Your task to perform on an android device: Open wifi settings Image 0: 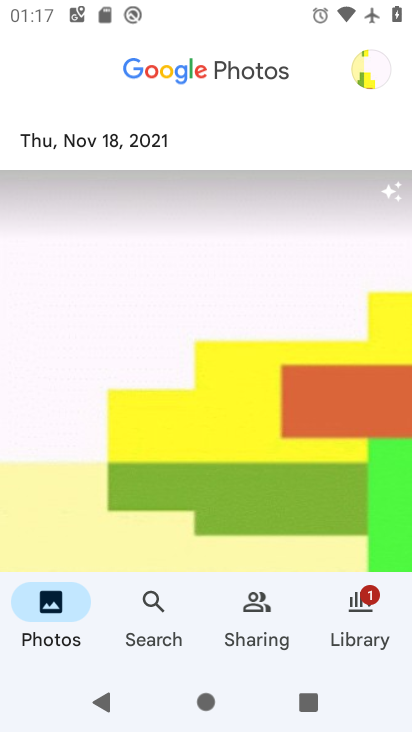
Step 0: press home button
Your task to perform on an android device: Open wifi settings Image 1: 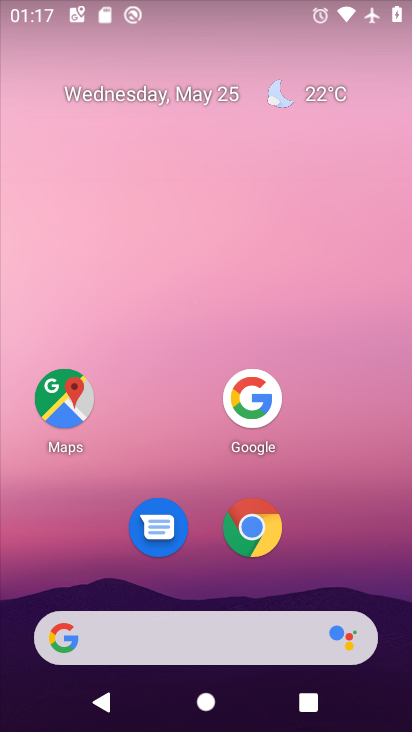
Step 1: drag from (214, 625) to (332, 64)
Your task to perform on an android device: Open wifi settings Image 2: 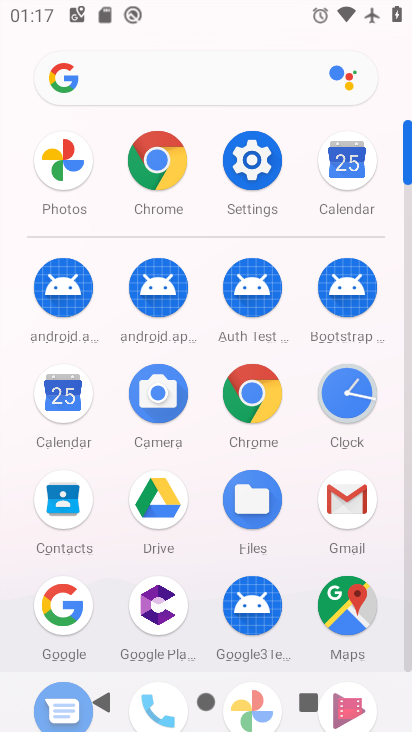
Step 2: click (261, 168)
Your task to perform on an android device: Open wifi settings Image 3: 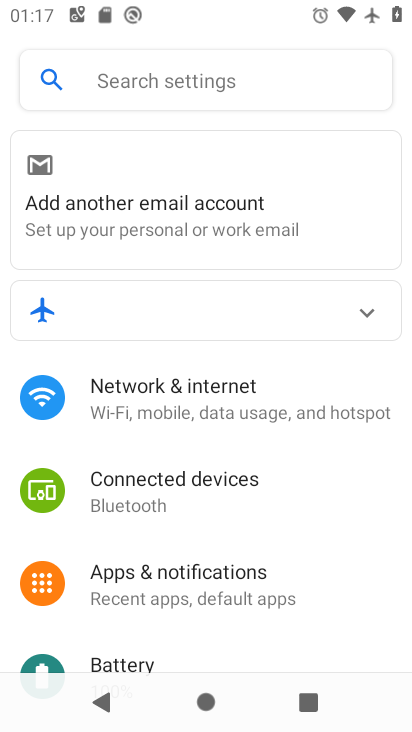
Step 3: click (216, 399)
Your task to perform on an android device: Open wifi settings Image 4: 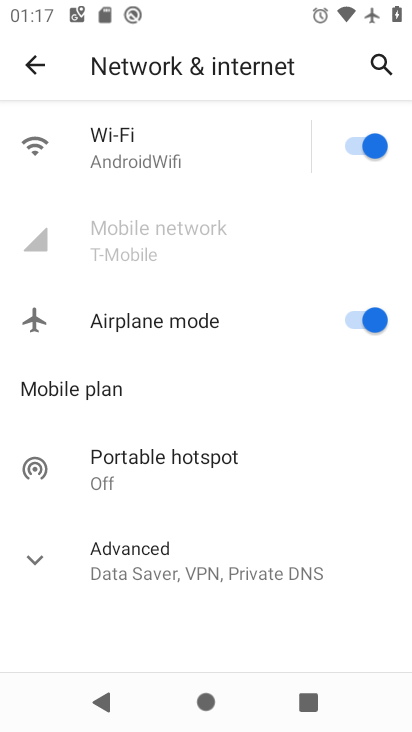
Step 4: click (161, 161)
Your task to perform on an android device: Open wifi settings Image 5: 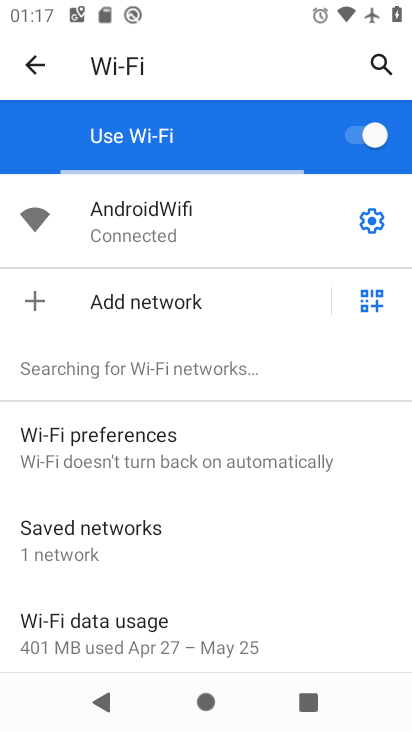
Step 5: task complete